Your task to perform on an android device: turn on bluetooth scan Image 0: 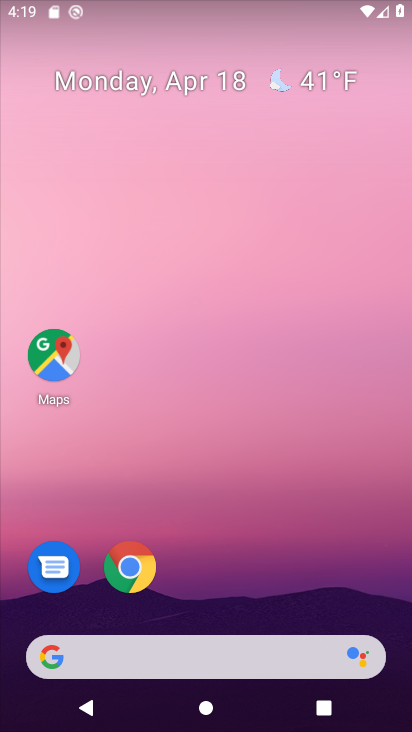
Step 0: drag from (218, 555) to (232, 54)
Your task to perform on an android device: turn on bluetooth scan Image 1: 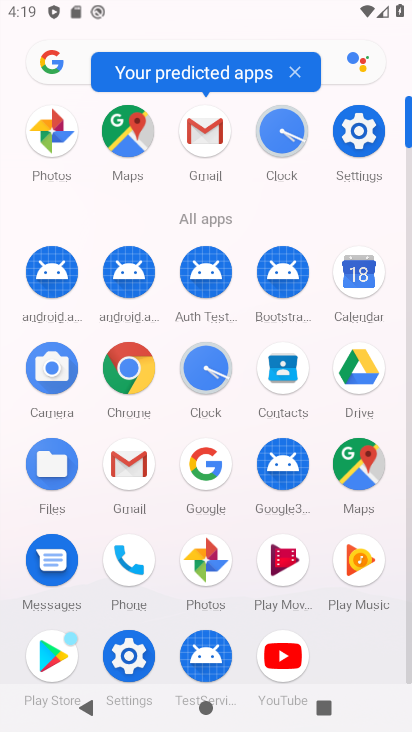
Step 1: click (345, 140)
Your task to perform on an android device: turn on bluetooth scan Image 2: 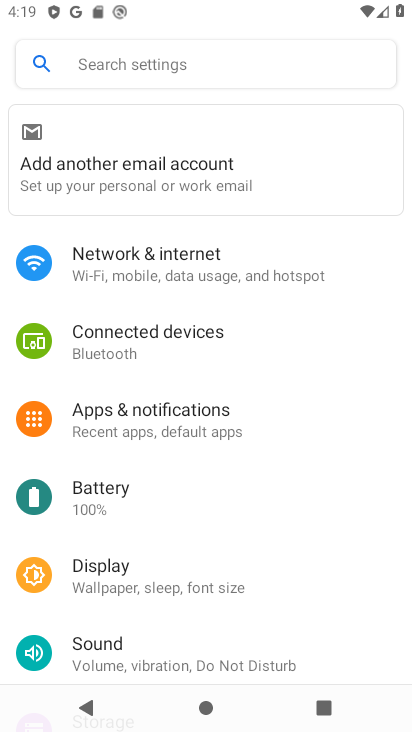
Step 2: drag from (173, 549) to (215, 411)
Your task to perform on an android device: turn on bluetooth scan Image 3: 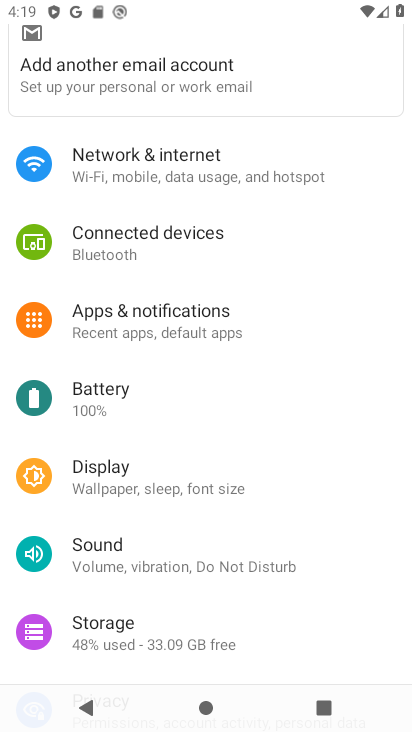
Step 3: drag from (178, 546) to (206, 427)
Your task to perform on an android device: turn on bluetooth scan Image 4: 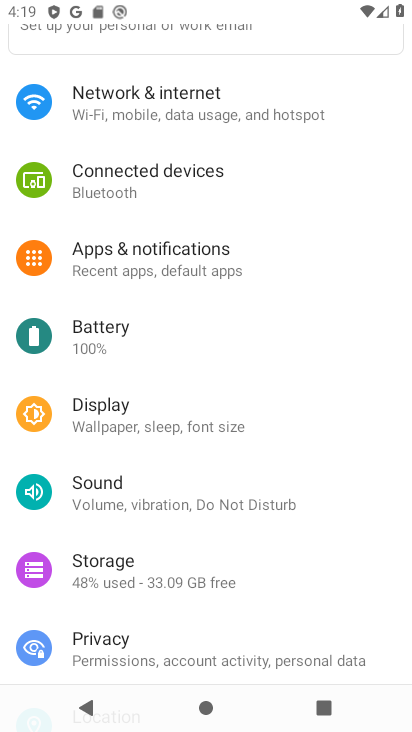
Step 4: drag from (188, 597) to (211, 492)
Your task to perform on an android device: turn on bluetooth scan Image 5: 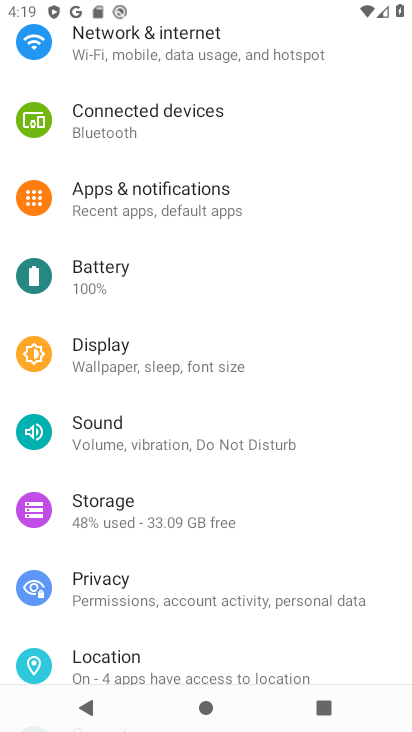
Step 5: drag from (163, 612) to (179, 486)
Your task to perform on an android device: turn on bluetooth scan Image 6: 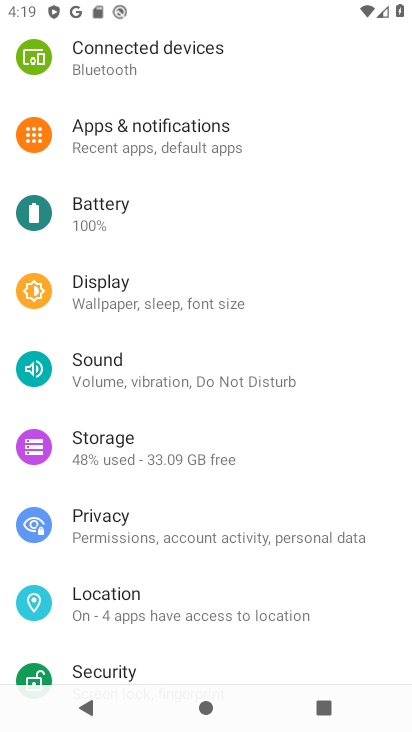
Step 6: click (119, 619)
Your task to perform on an android device: turn on bluetooth scan Image 7: 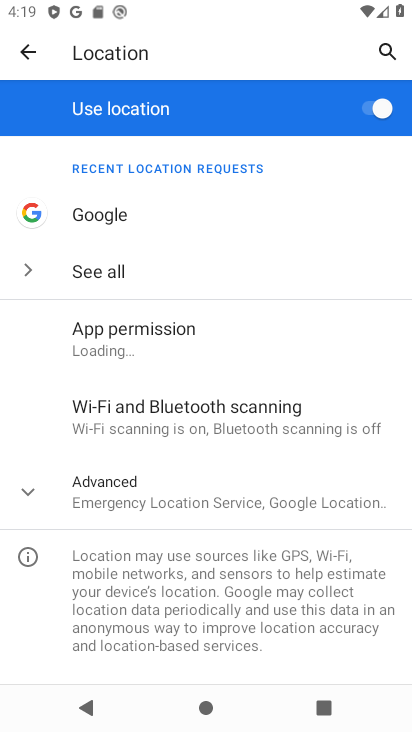
Step 7: click (221, 422)
Your task to perform on an android device: turn on bluetooth scan Image 8: 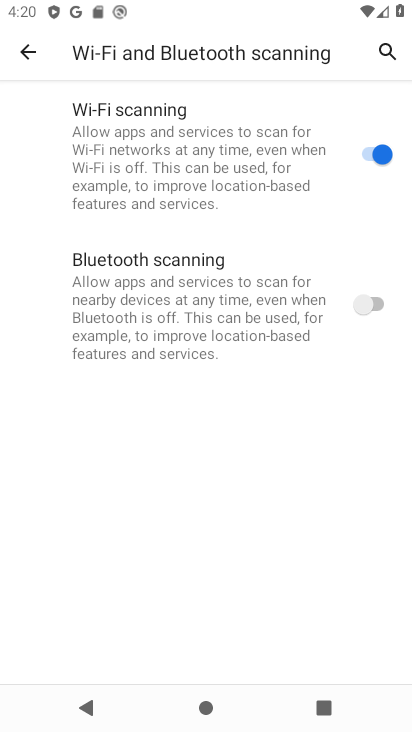
Step 8: click (362, 305)
Your task to perform on an android device: turn on bluetooth scan Image 9: 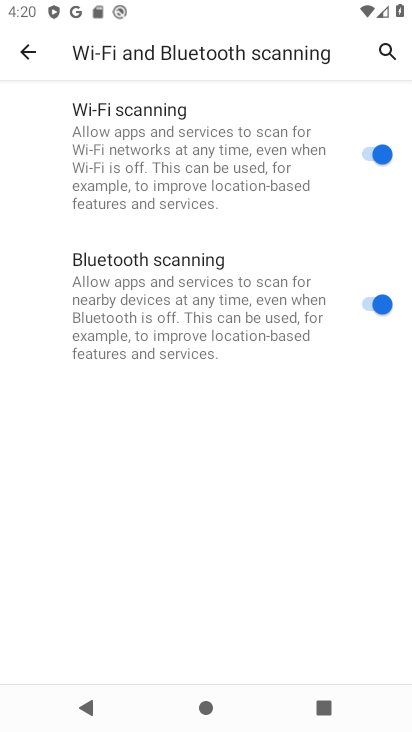
Step 9: task complete